Your task to perform on an android device: toggle airplane mode Image 0: 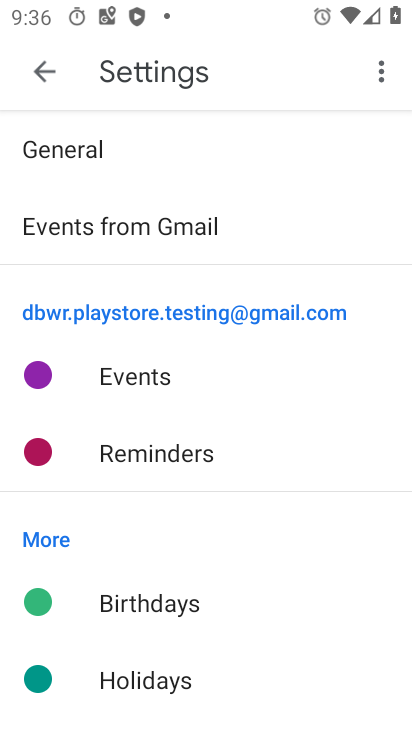
Step 0: press home button
Your task to perform on an android device: toggle airplane mode Image 1: 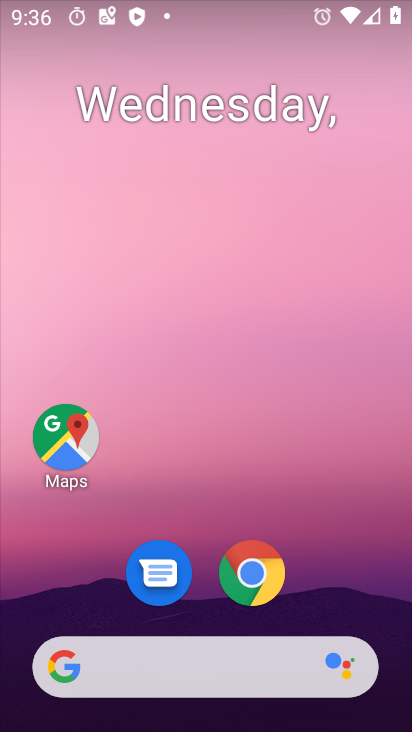
Step 1: drag from (315, 639) to (165, 34)
Your task to perform on an android device: toggle airplane mode Image 2: 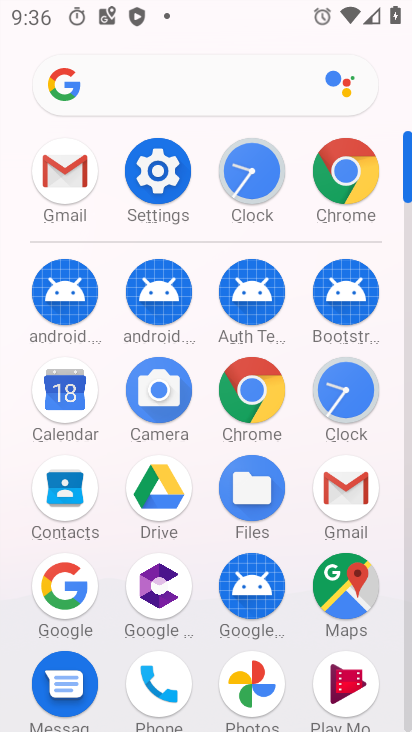
Step 2: click (168, 166)
Your task to perform on an android device: toggle airplane mode Image 3: 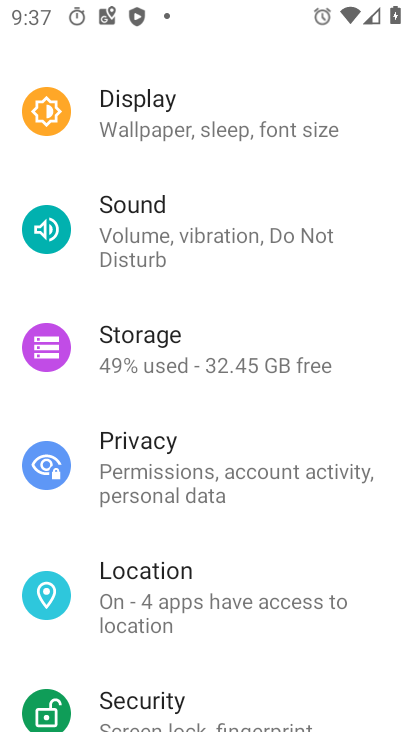
Step 3: drag from (222, 537) to (272, 19)
Your task to perform on an android device: toggle airplane mode Image 4: 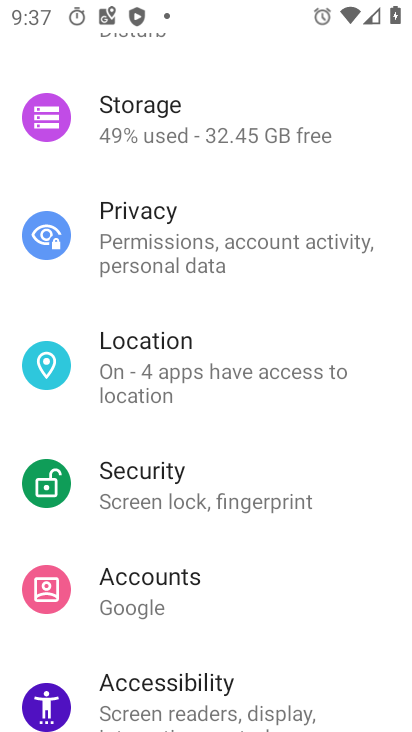
Step 4: drag from (234, 277) to (188, 608)
Your task to perform on an android device: toggle airplane mode Image 5: 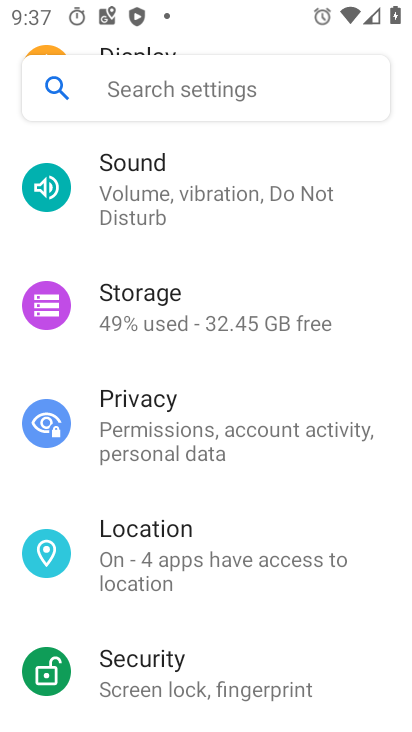
Step 5: drag from (280, 316) to (242, 659)
Your task to perform on an android device: toggle airplane mode Image 6: 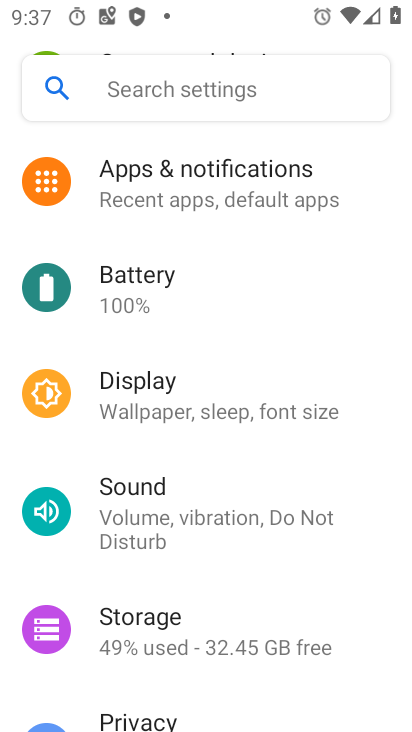
Step 6: drag from (260, 208) to (213, 613)
Your task to perform on an android device: toggle airplane mode Image 7: 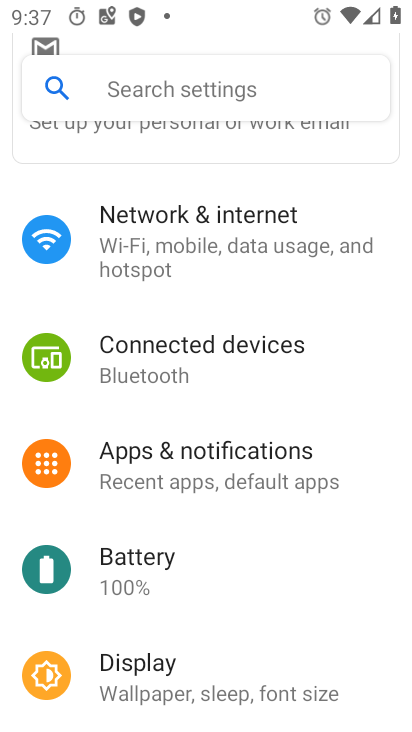
Step 7: click (234, 234)
Your task to perform on an android device: toggle airplane mode Image 8: 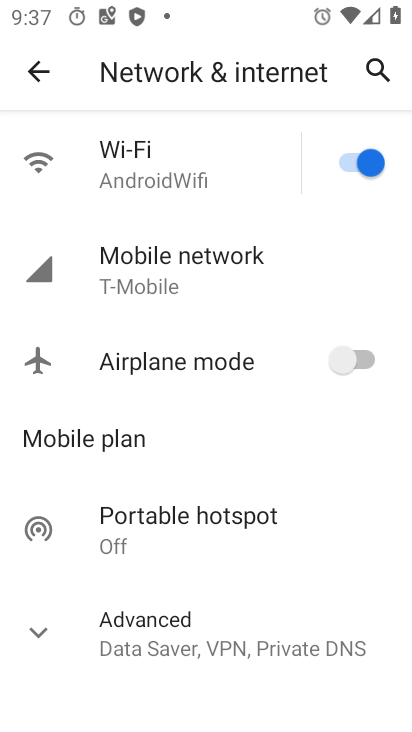
Step 8: click (291, 372)
Your task to perform on an android device: toggle airplane mode Image 9: 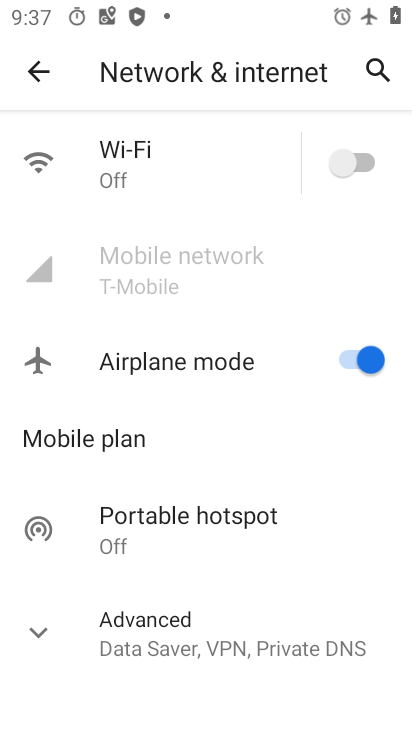
Step 9: task complete